Your task to perform on an android device: Open the calendar app, open the side menu, and click the "Day" option Image 0: 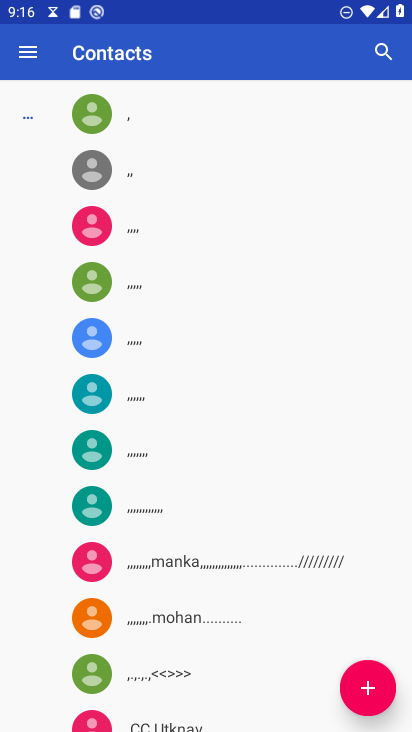
Step 0: press home button
Your task to perform on an android device: Open the calendar app, open the side menu, and click the "Day" option Image 1: 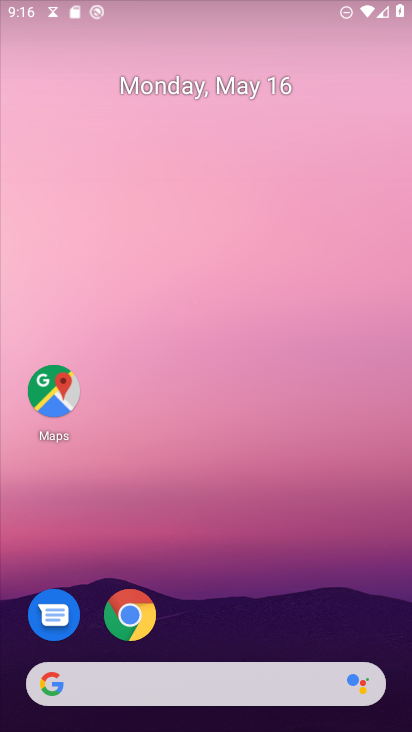
Step 1: drag from (0, 692) to (269, 184)
Your task to perform on an android device: Open the calendar app, open the side menu, and click the "Day" option Image 2: 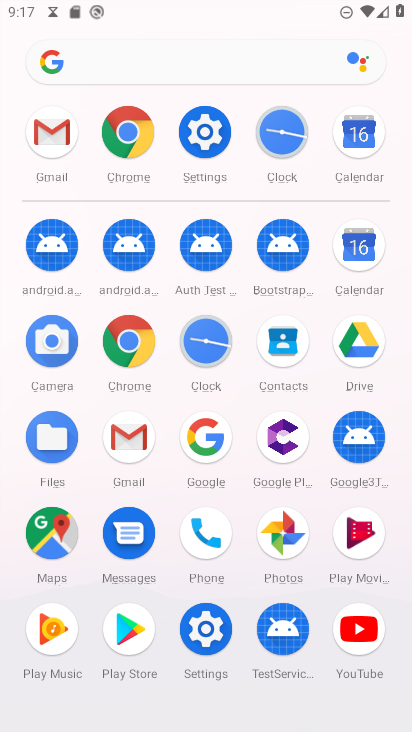
Step 2: click (364, 134)
Your task to perform on an android device: Open the calendar app, open the side menu, and click the "Day" option Image 3: 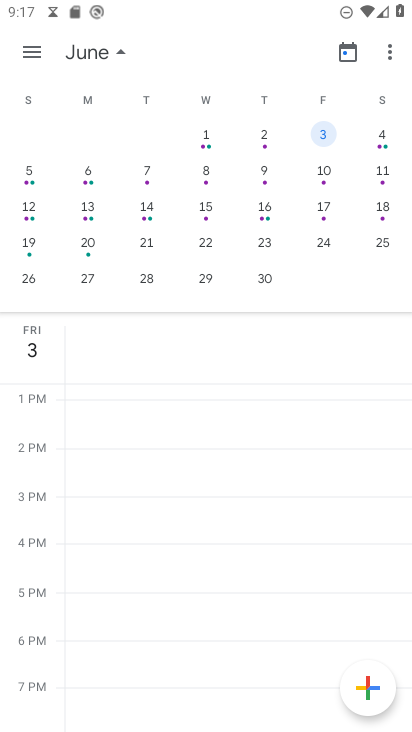
Step 3: click (27, 47)
Your task to perform on an android device: Open the calendar app, open the side menu, and click the "Day" option Image 4: 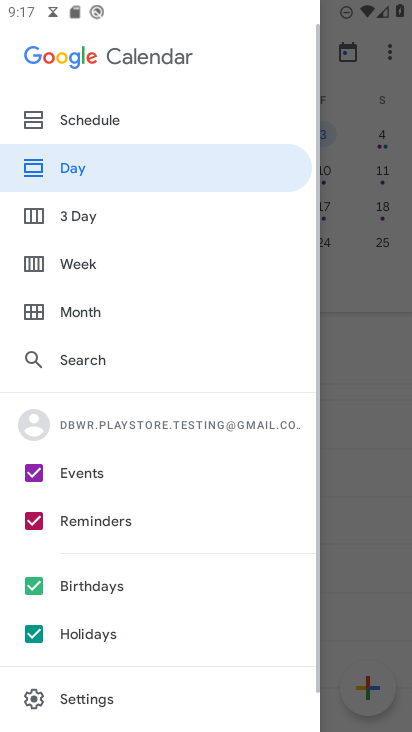
Step 4: click (92, 154)
Your task to perform on an android device: Open the calendar app, open the side menu, and click the "Day" option Image 5: 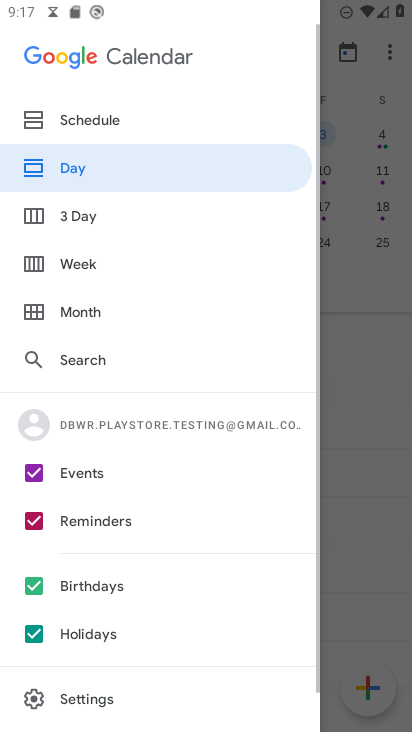
Step 5: task complete